Your task to perform on an android device: change notifications settings Image 0: 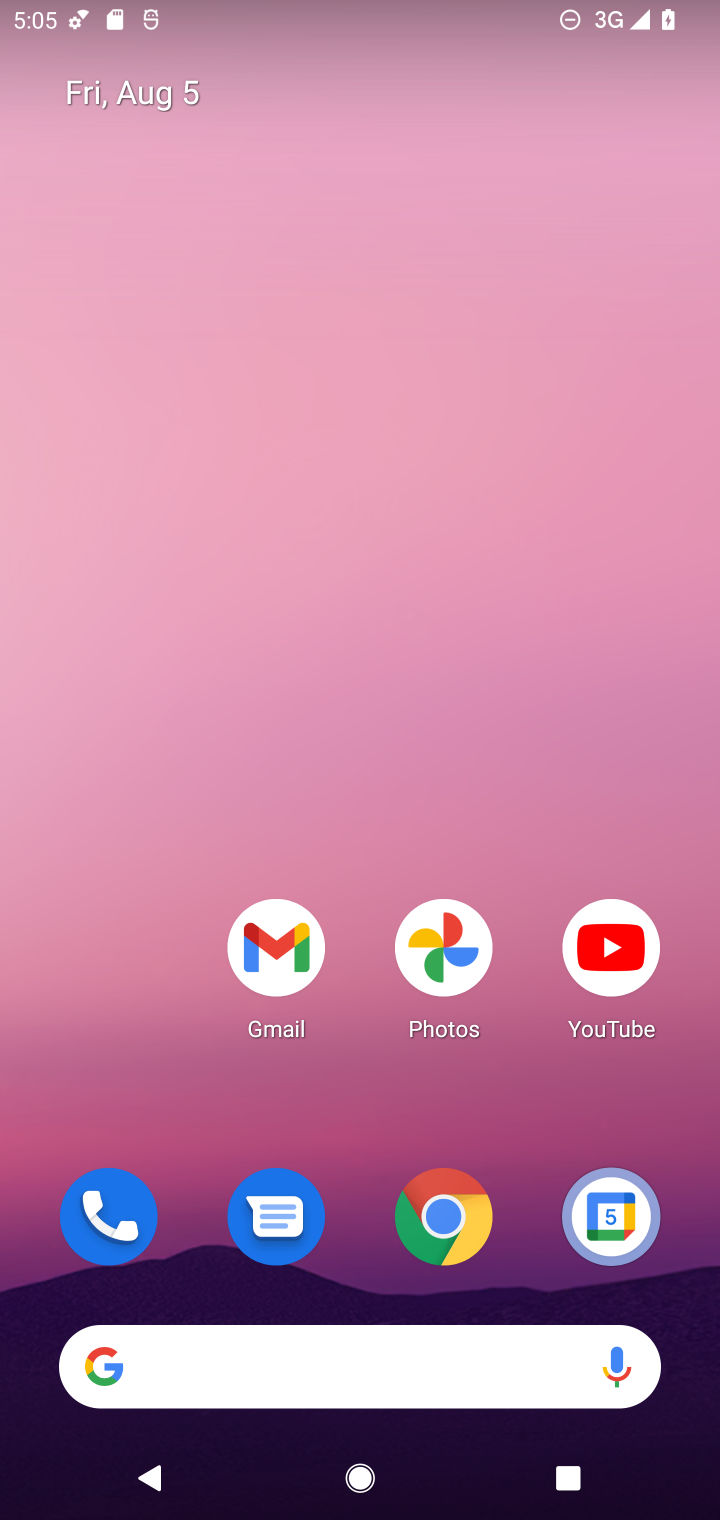
Step 0: drag from (410, 1088) to (410, 40)
Your task to perform on an android device: change notifications settings Image 1: 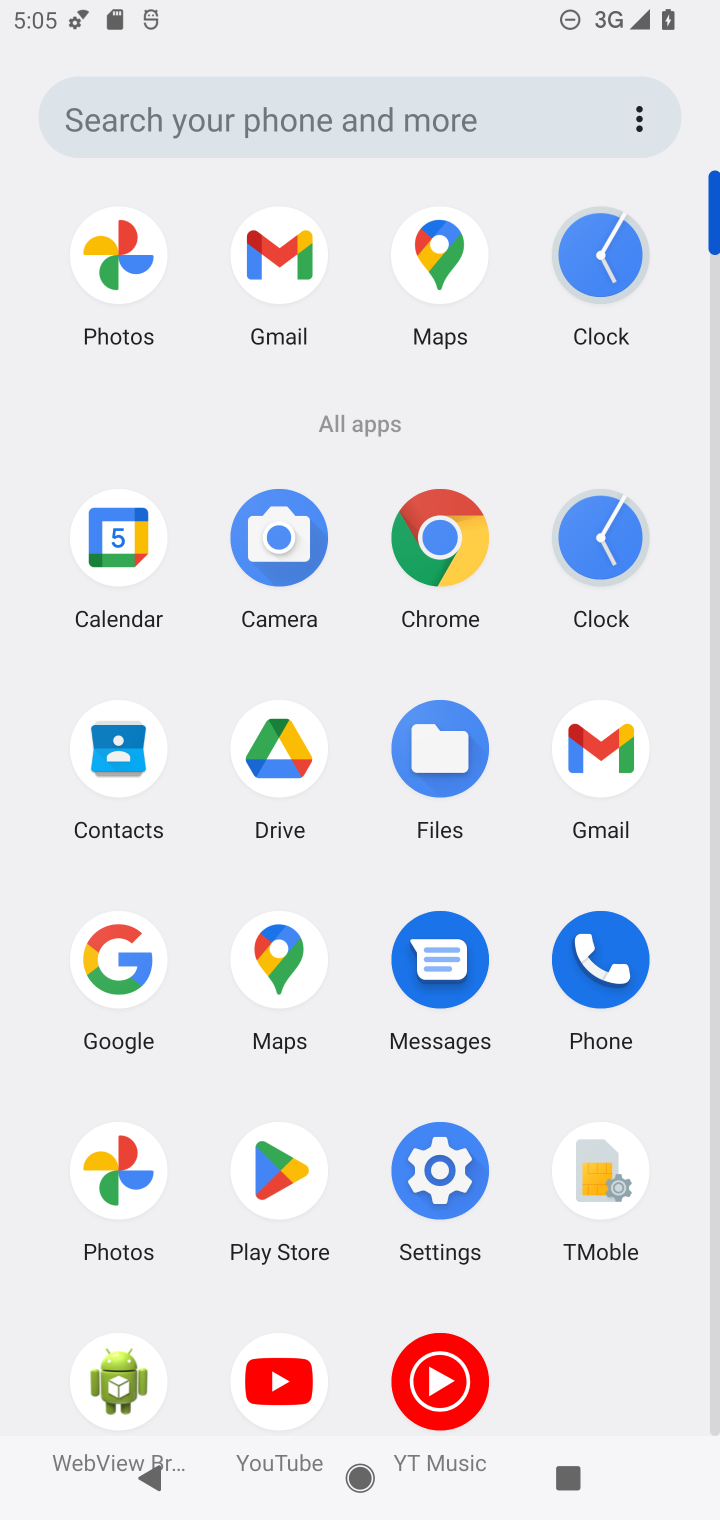
Step 1: click (433, 1206)
Your task to perform on an android device: change notifications settings Image 2: 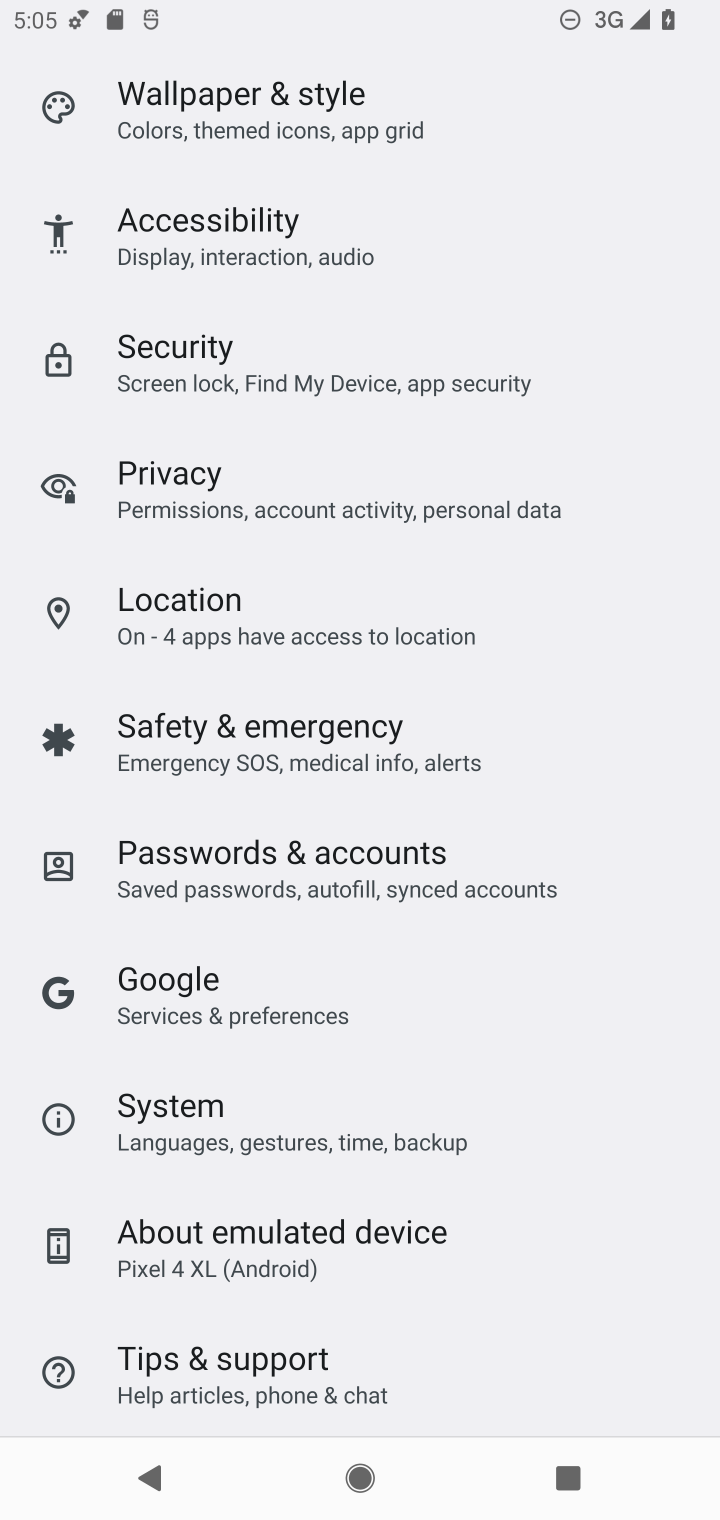
Step 2: drag from (319, 165) to (338, 1252)
Your task to perform on an android device: change notifications settings Image 3: 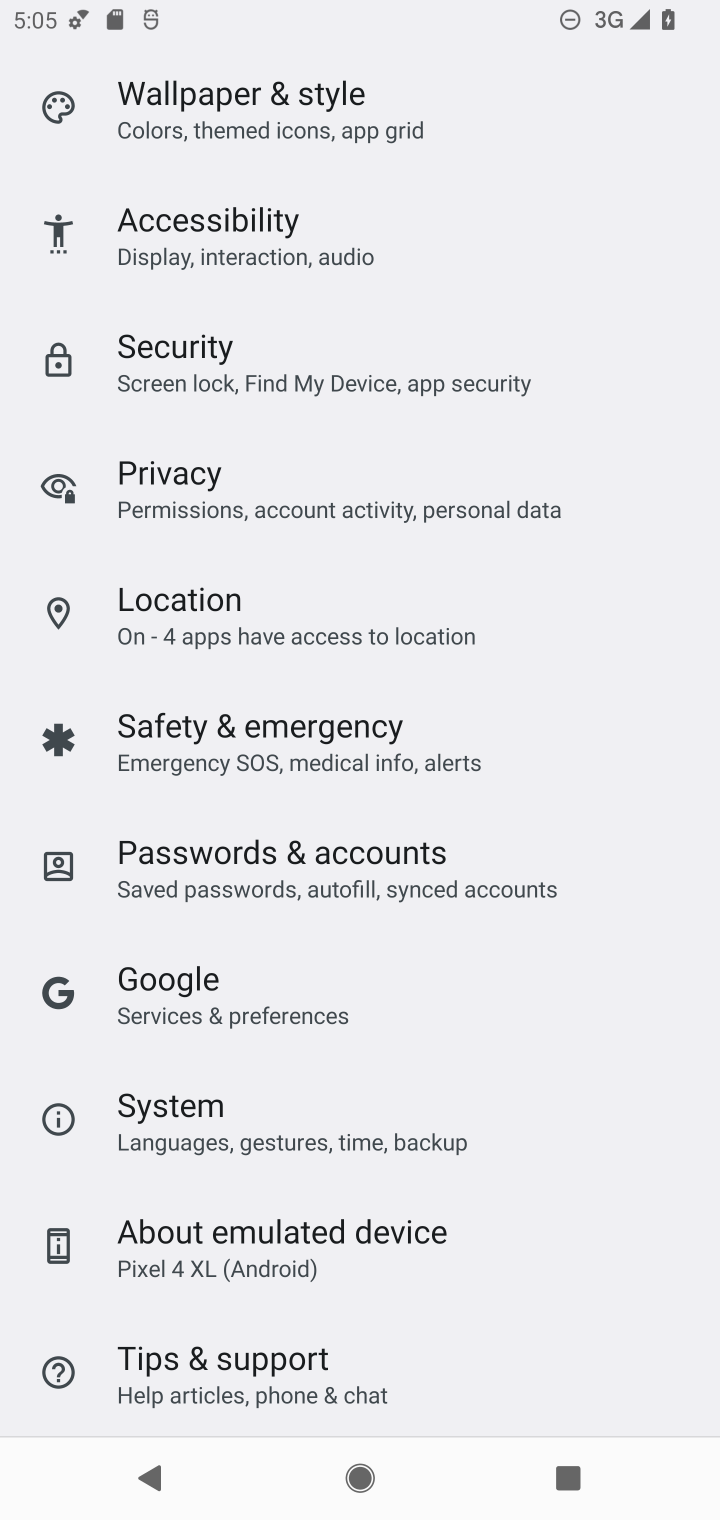
Step 3: drag from (412, 426) to (430, 1404)
Your task to perform on an android device: change notifications settings Image 4: 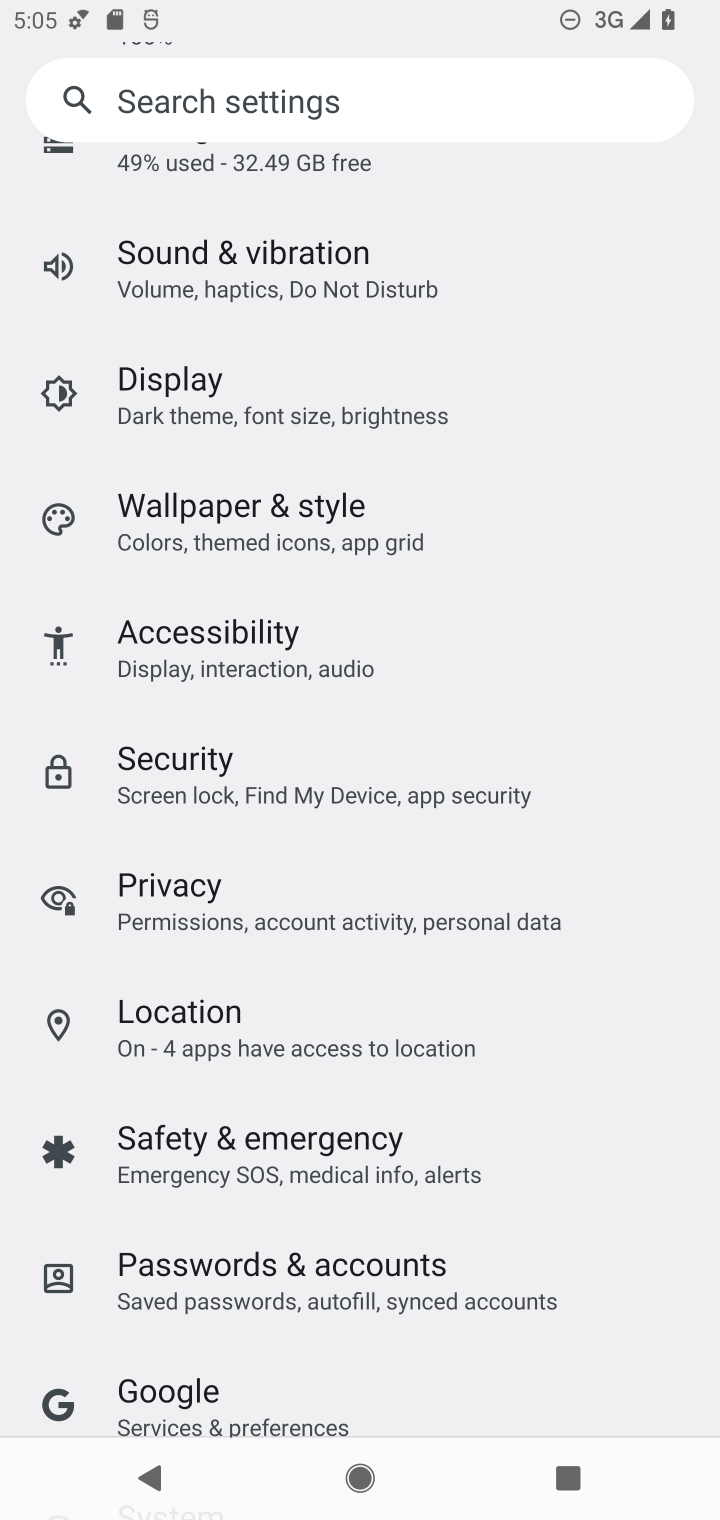
Step 4: drag from (477, 558) to (717, 1129)
Your task to perform on an android device: change notifications settings Image 5: 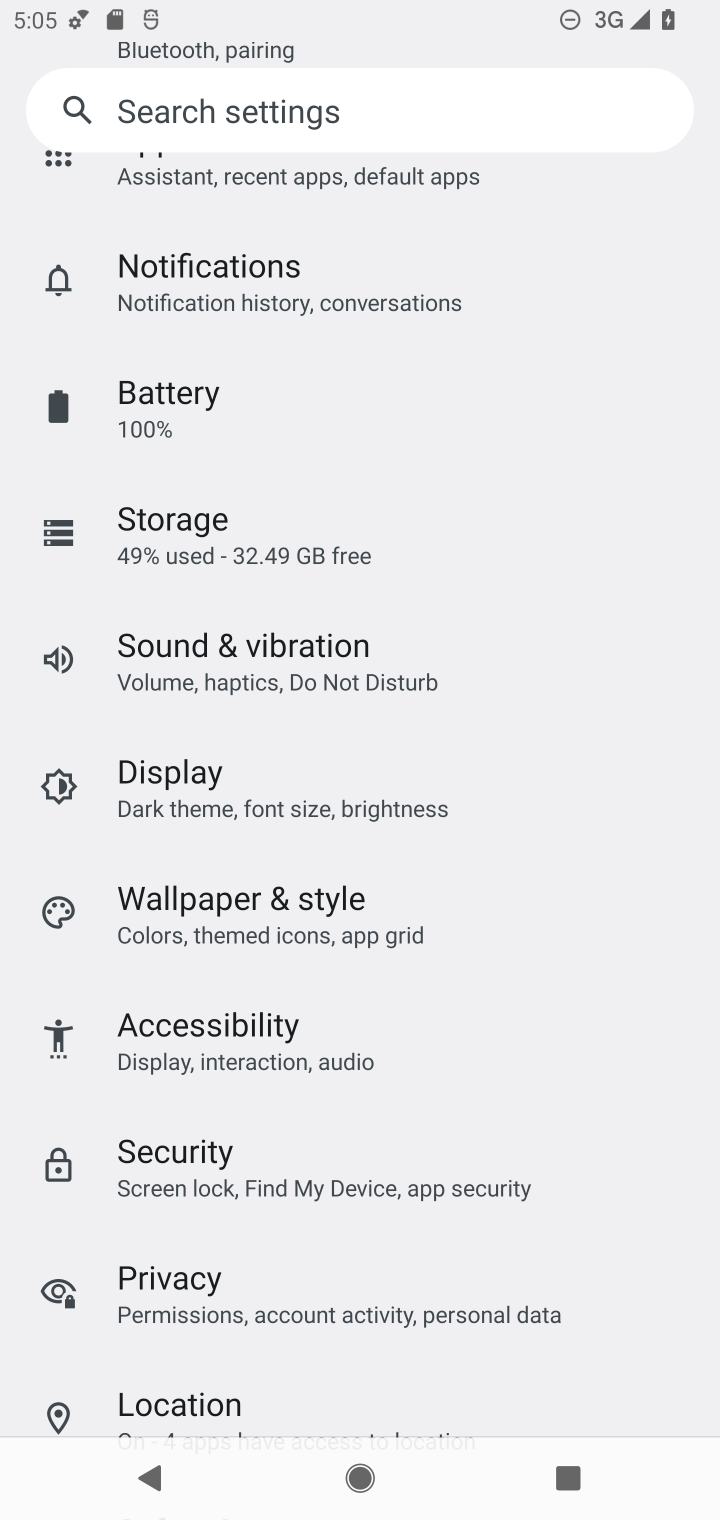
Step 5: click (356, 296)
Your task to perform on an android device: change notifications settings Image 6: 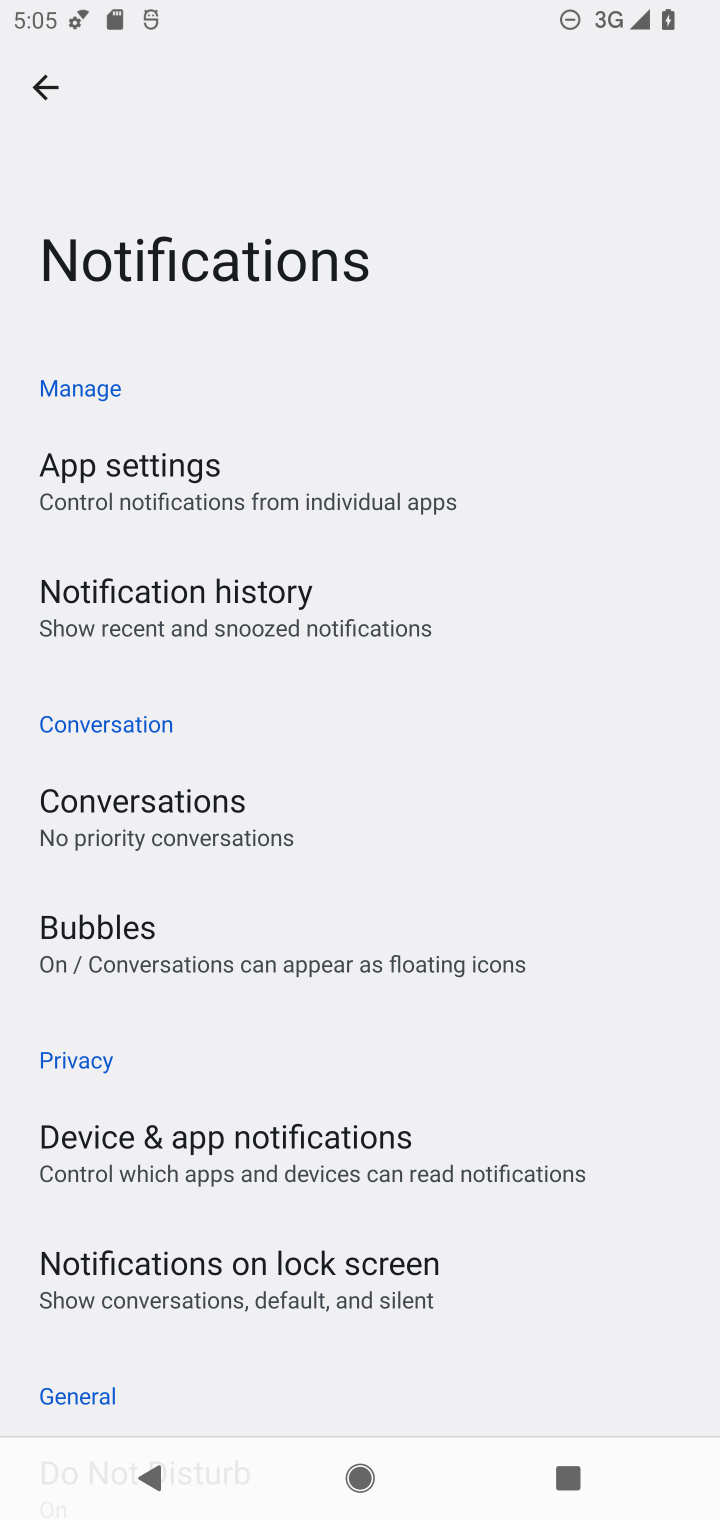
Step 6: click (245, 483)
Your task to perform on an android device: change notifications settings Image 7: 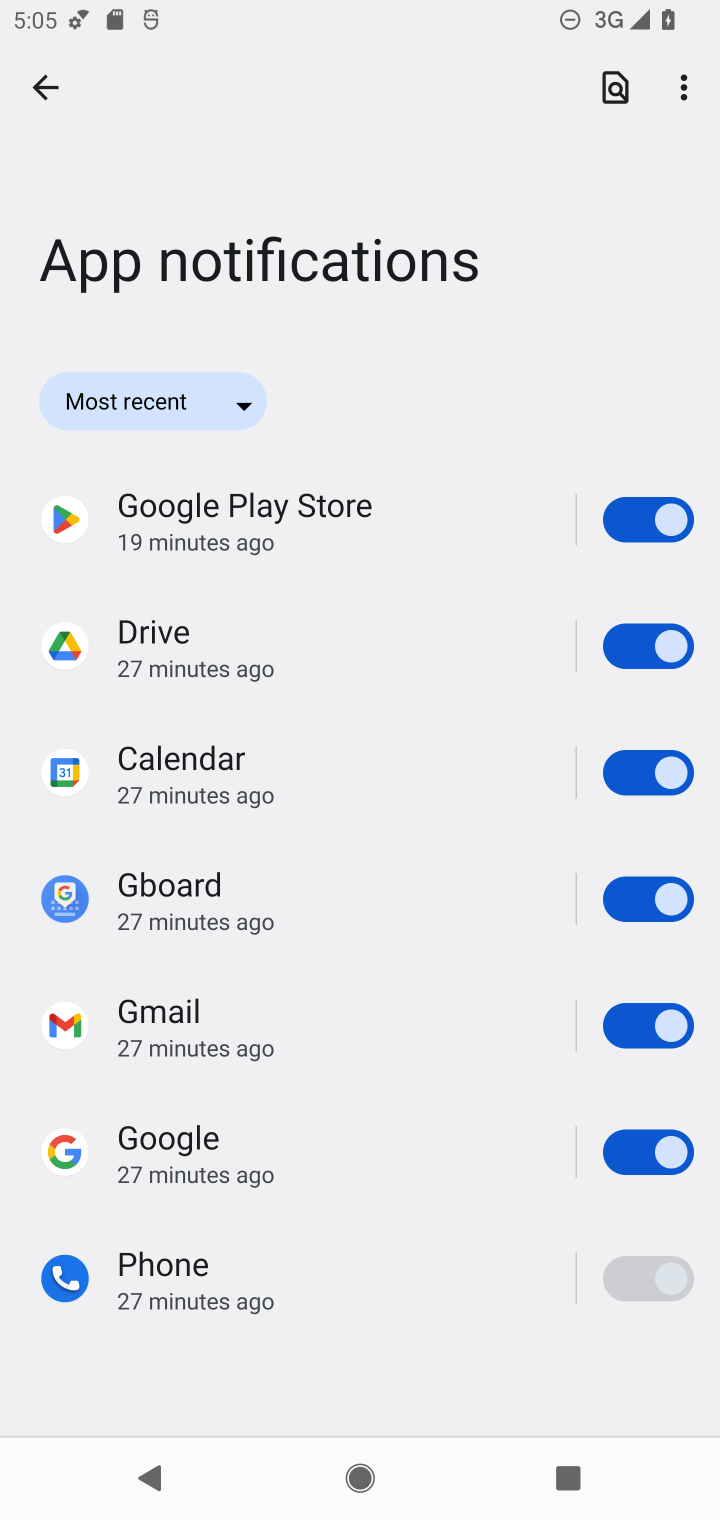
Step 7: click (645, 539)
Your task to perform on an android device: change notifications settings Image 8: 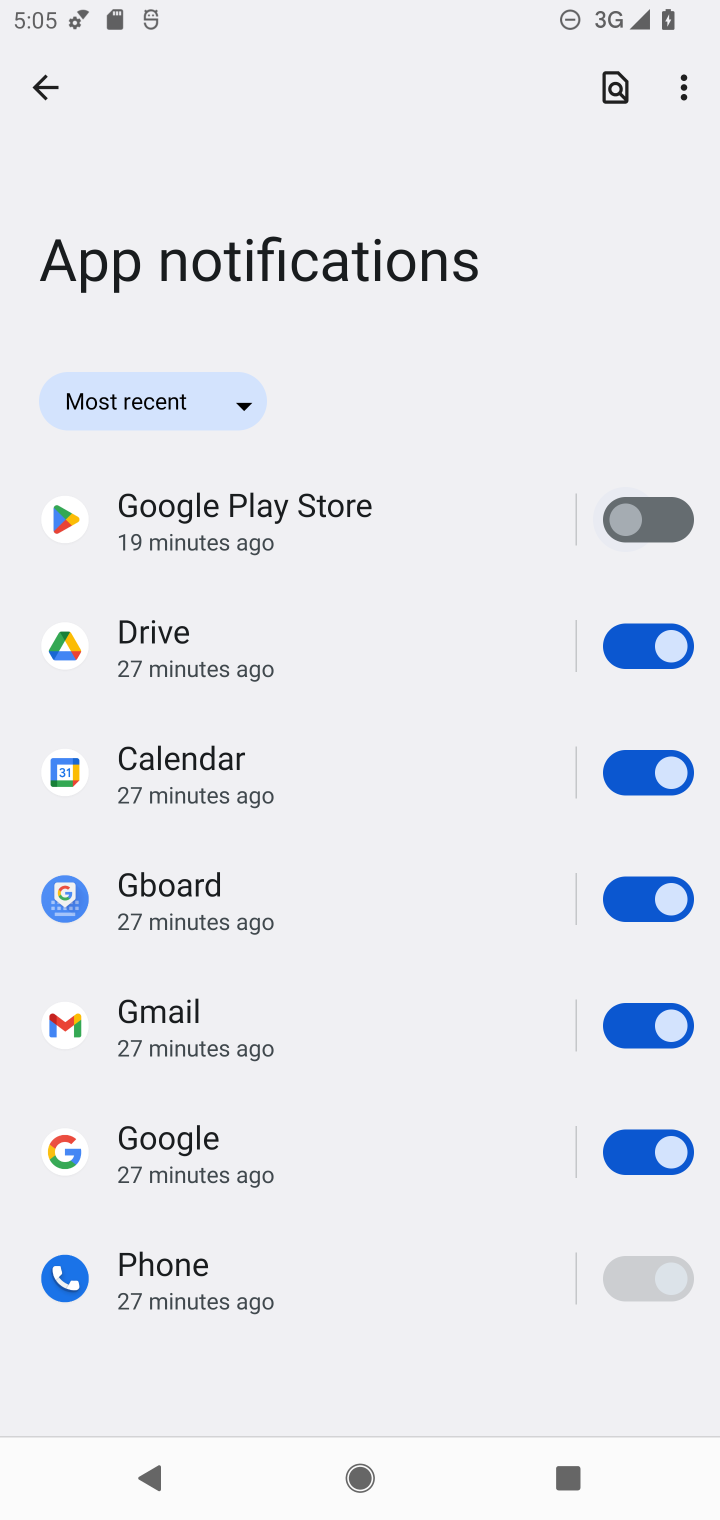
Step 8: click (645, 639)
Your task to perform on an android device: change notifications settings Image 9: 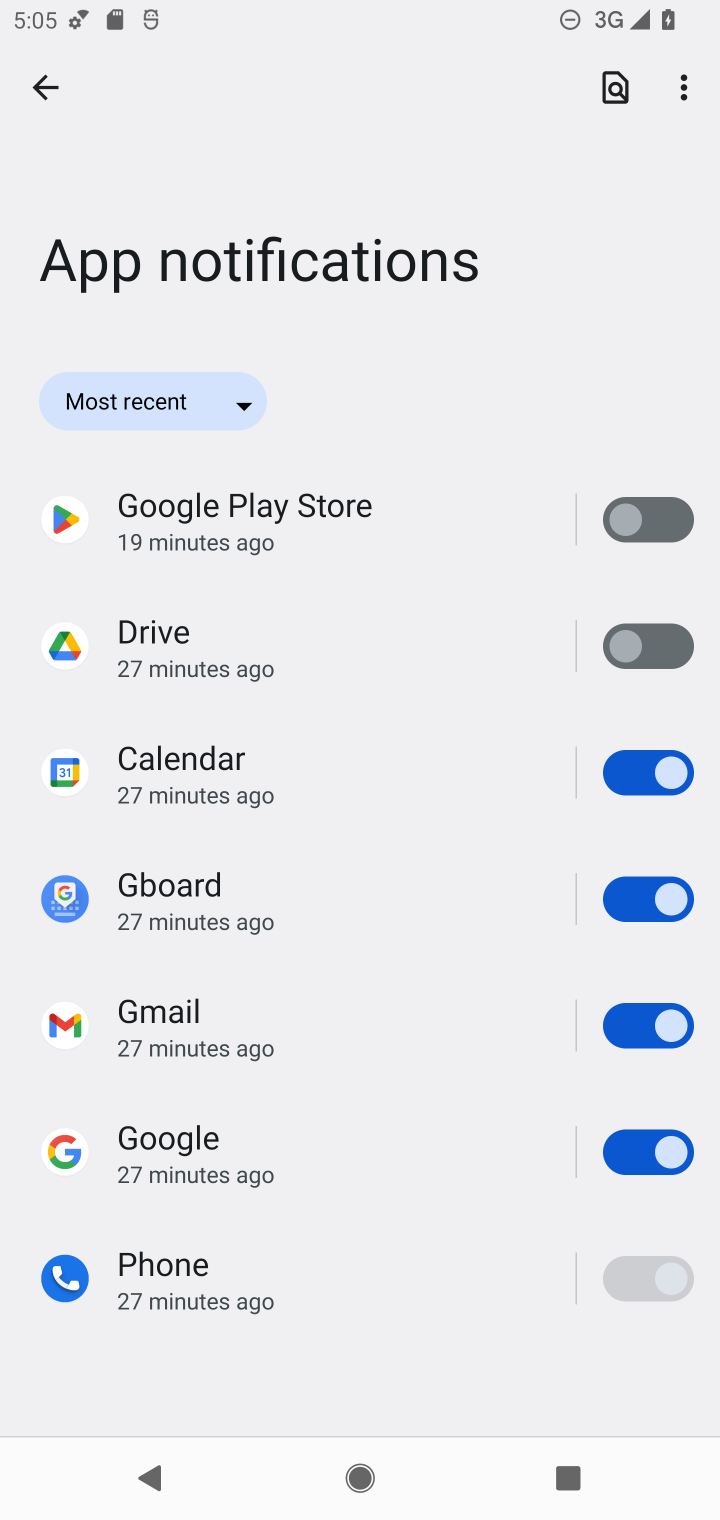
Step 9: click (645, 785)
Your task to perform on an android device: change notifications settings Image 10: 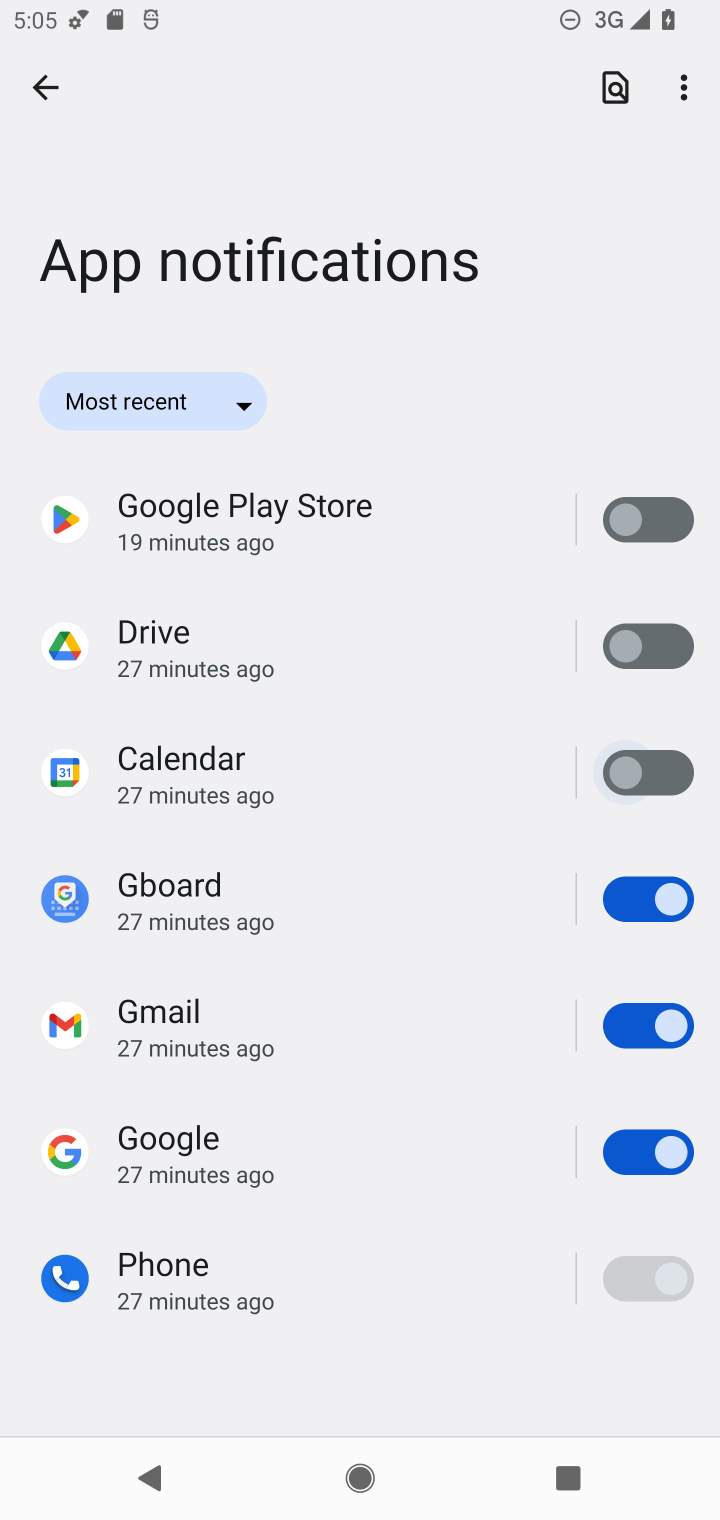
Step 10: click (645, 930)
Your task to perform on an android device: change notifications settings Image 11: 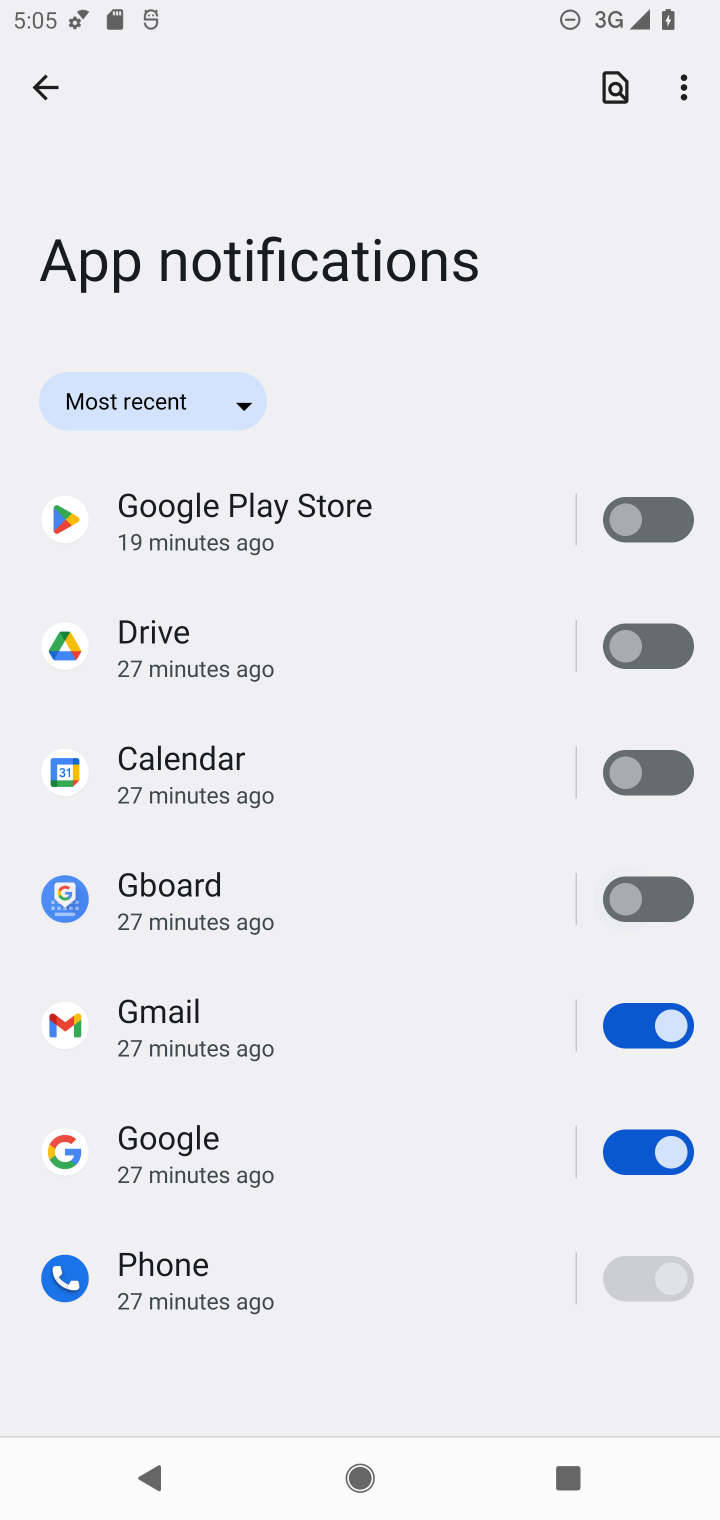
Step 11: click (645, 1015)
Your task to perform on an android device: change notifications settings Image 12: 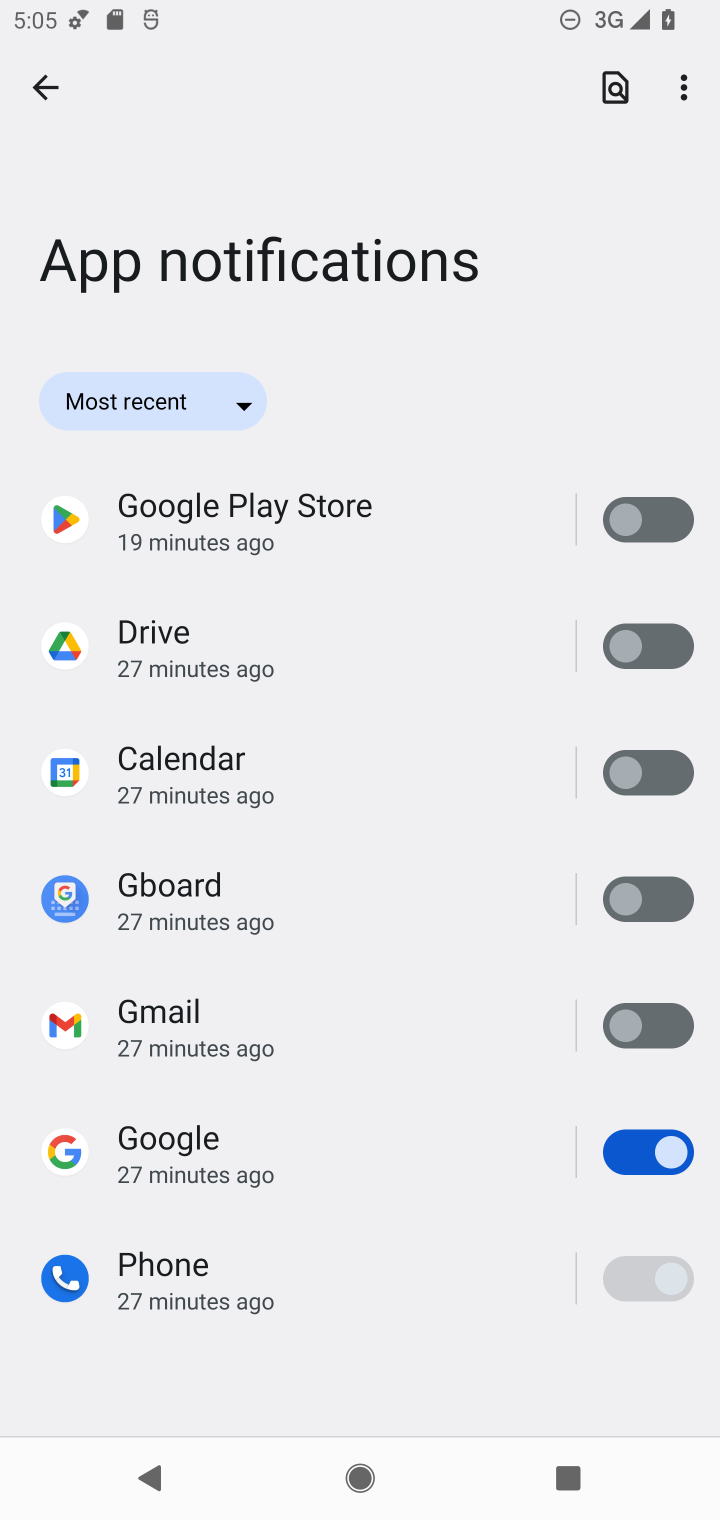
Step 12: click (645, 1166)
Your task to perform on an android device: change notifications settings Image 13: 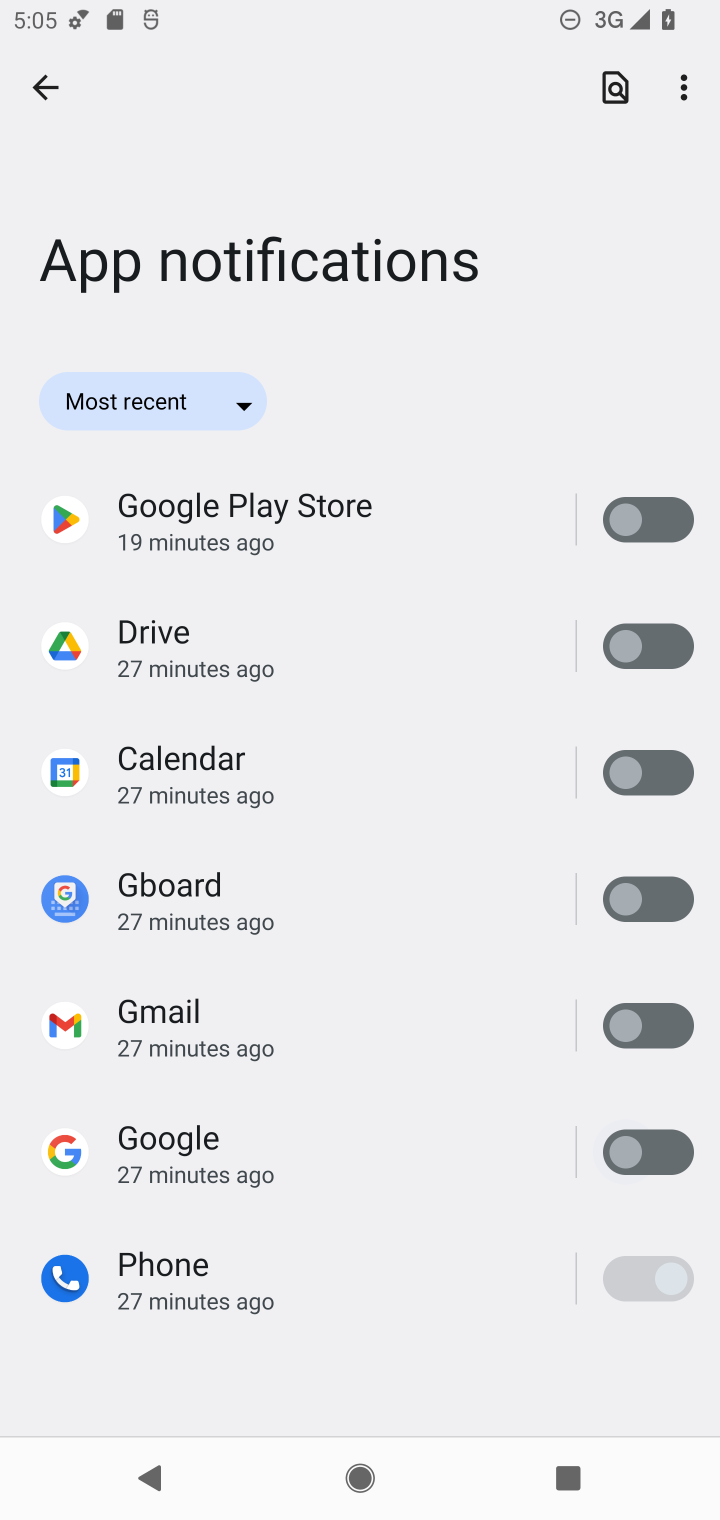
Step 13: click (663, 1266)
Your task to perform on an android device: change notifications settings Image 14: 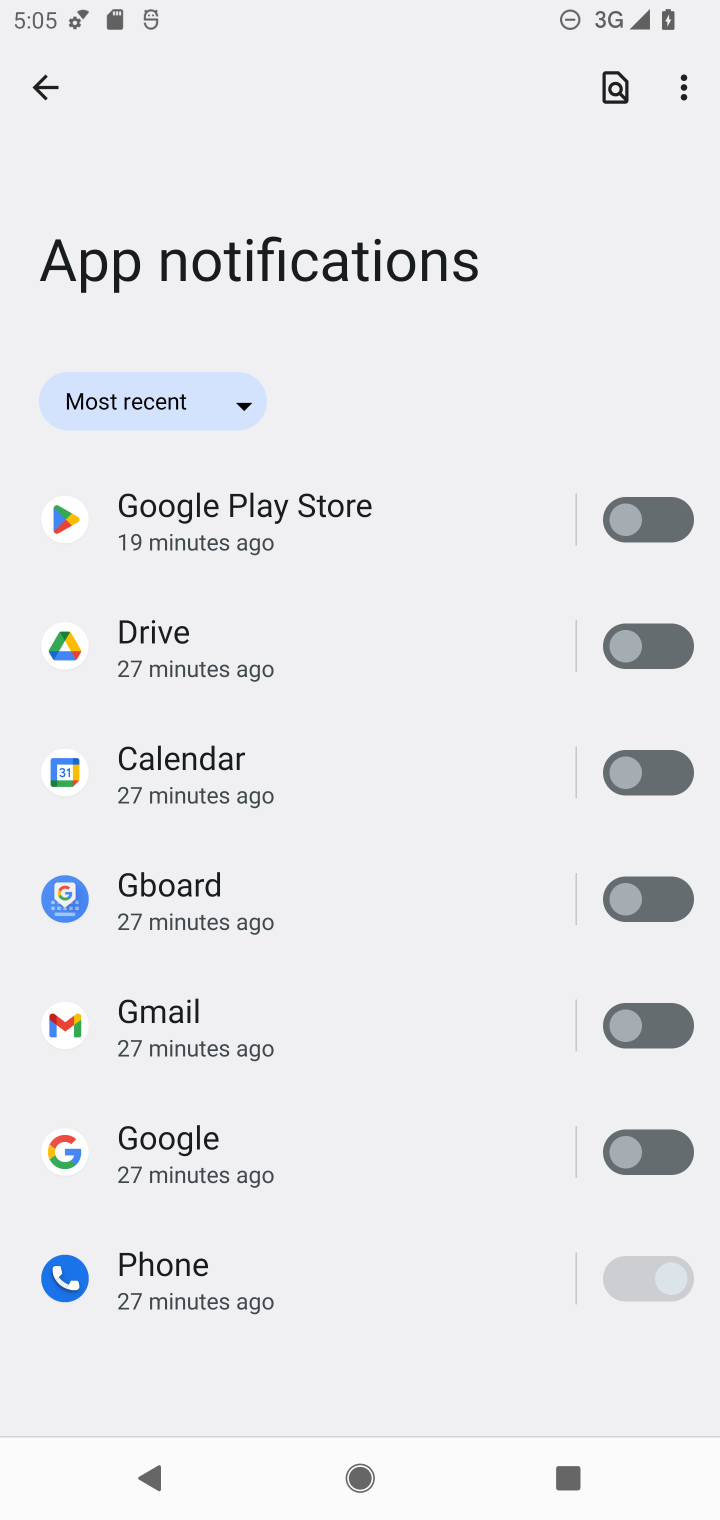
Step 14: click (53, 81)
Your task to perform on an android device: change notifications settings Image 15: 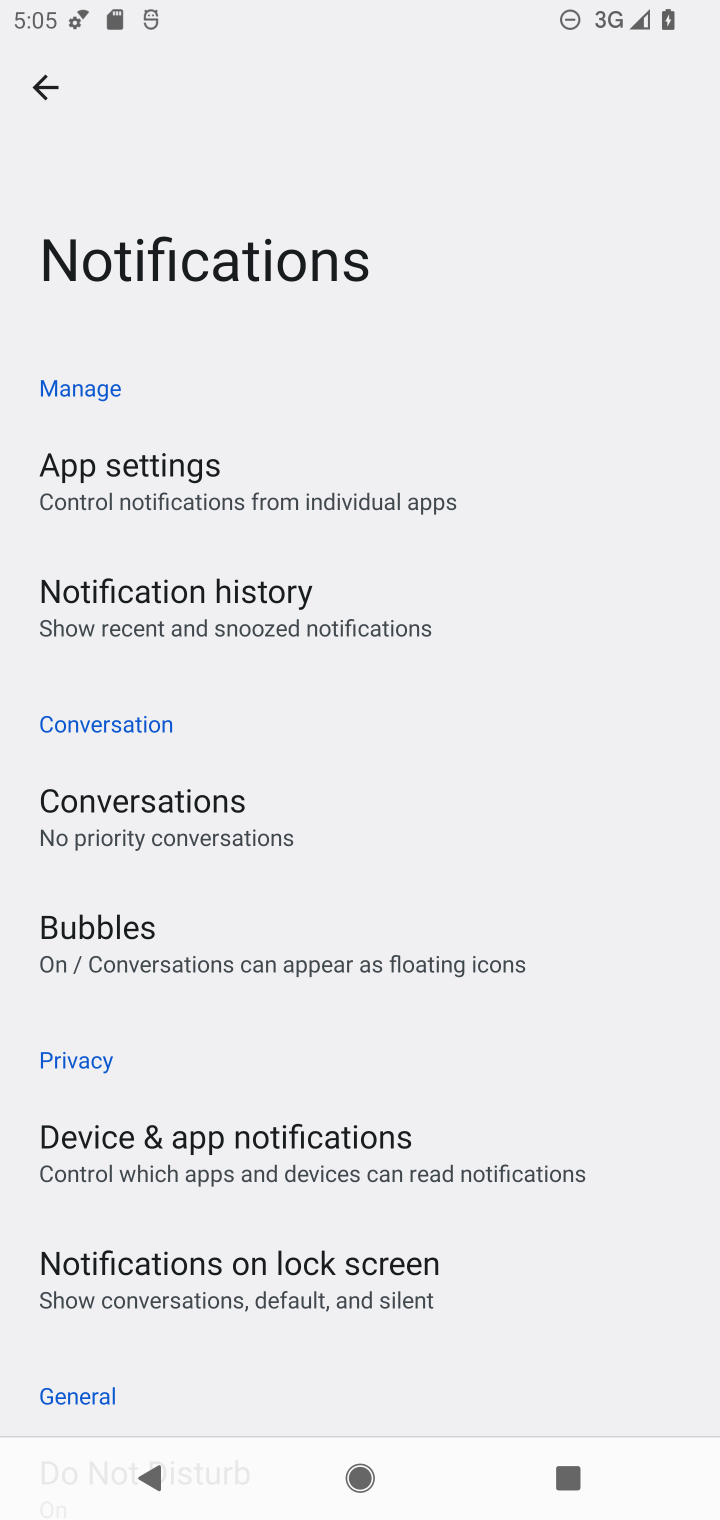
Step 15: click (177, 1260)
Your task to perform on an android device: change notifications settings Image 16: 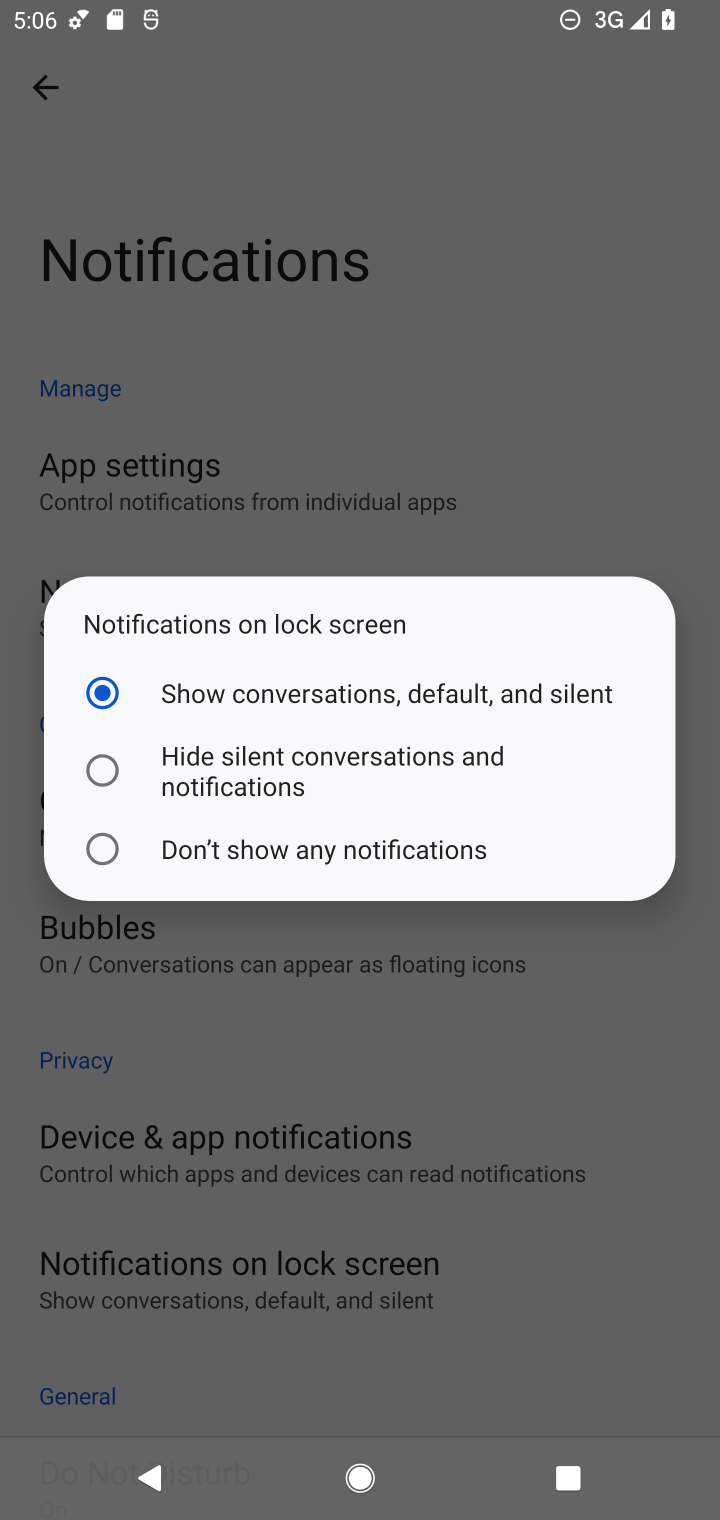
Step 16: click (310, 765)
Your task to perform on an android device: change notifications settings Image 17: 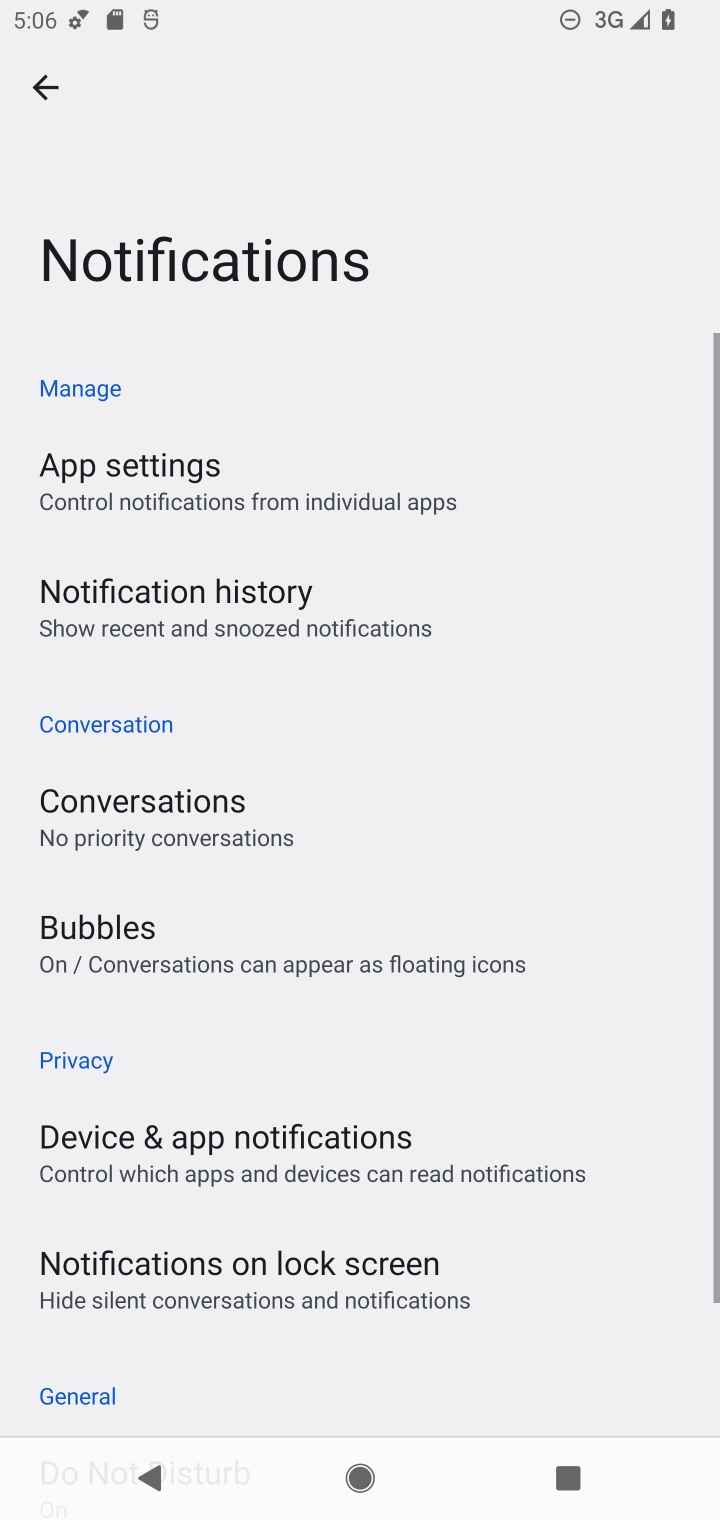
Step 17: drag from (268, 1185) to (231, 349)
Your task to perform on an android device: change notifications settings Image 18: 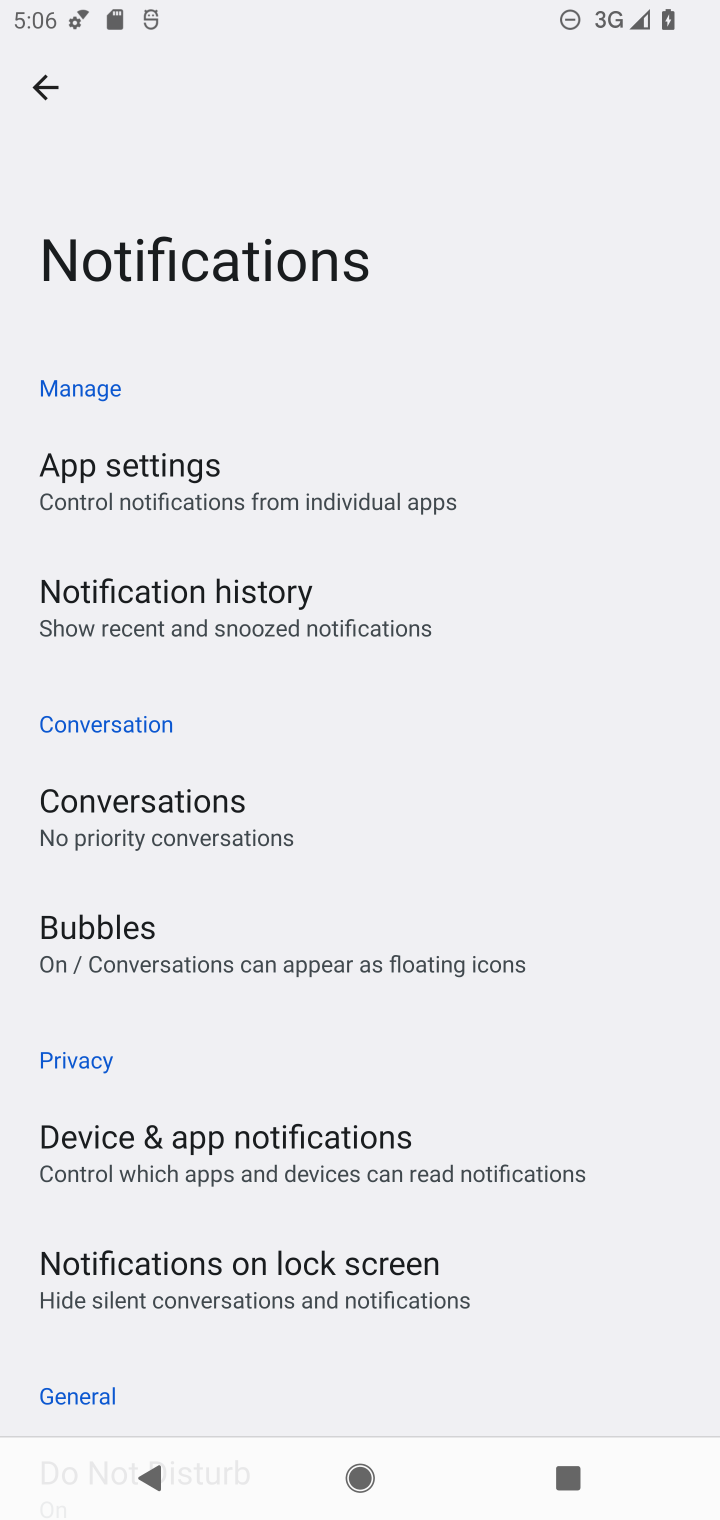
Step 18: drag from (214, 1084) to (150, 386)
Your task to perform on an android device: change notifications settings Image 19: 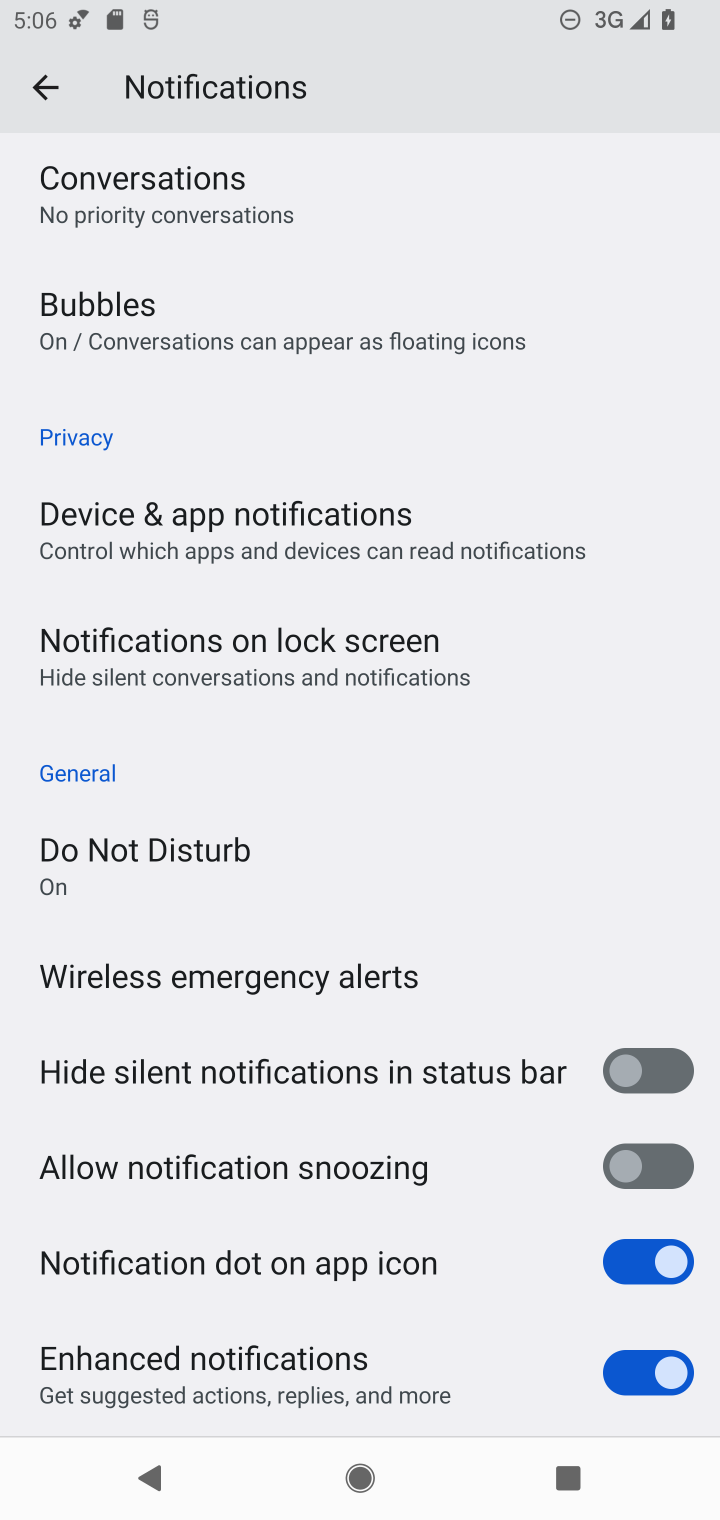
Step 19: drag from (552, 1147) to (552, 859)
Your task to perform on an android device: change notifications settings Image 20: 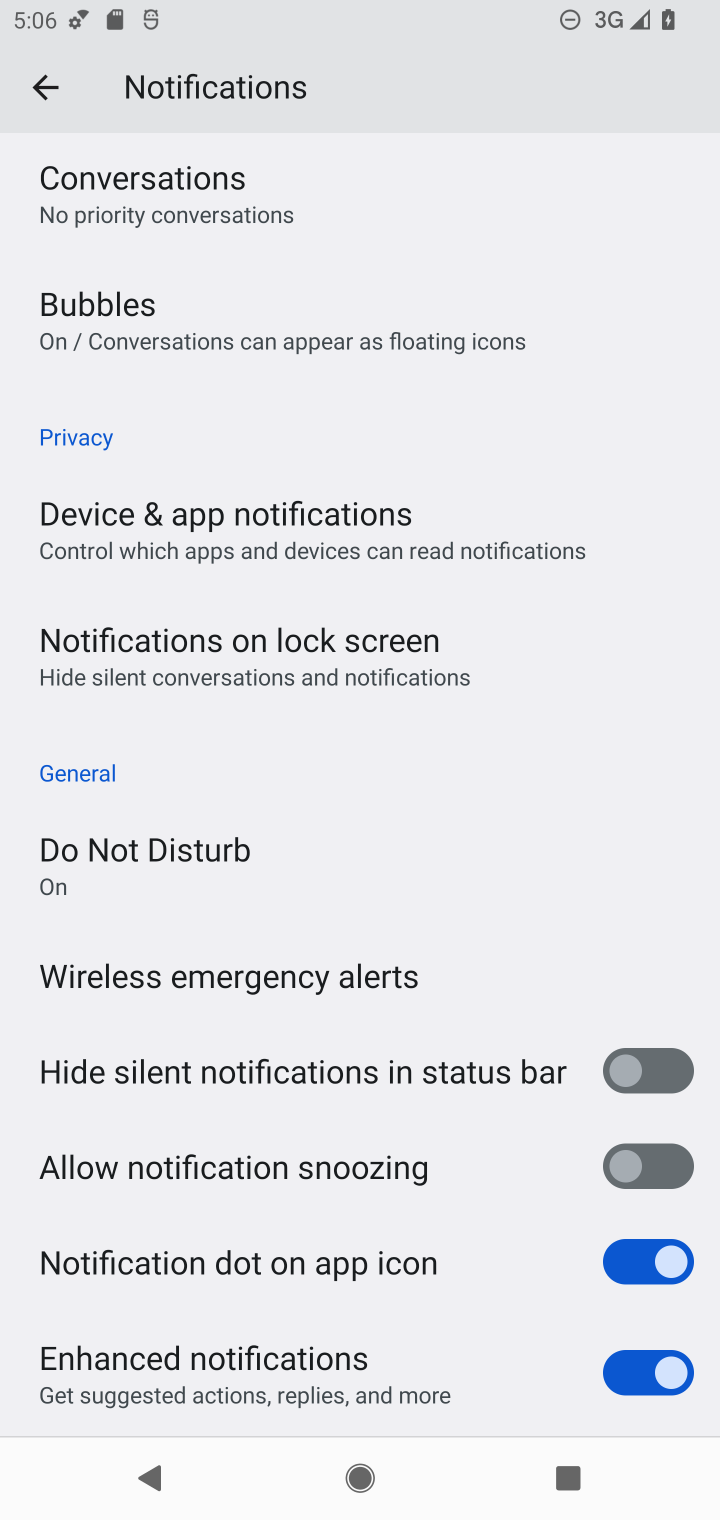
Step 20: click (688, 1072)
Your task to perform on an android device: change notifications settings Image 21: 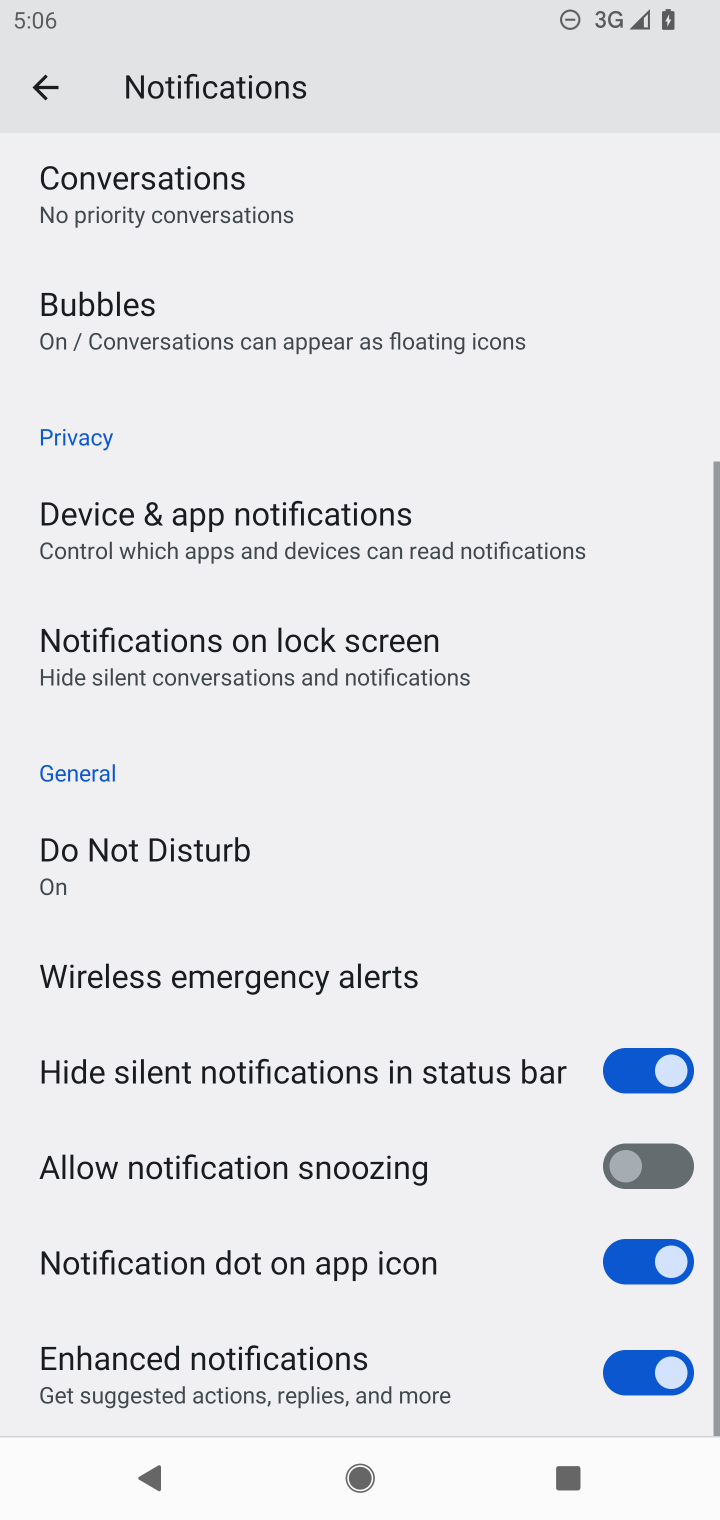
Step 21: click (670, 1189)
Your task to perform on an android device: change notifications settings Image 22: 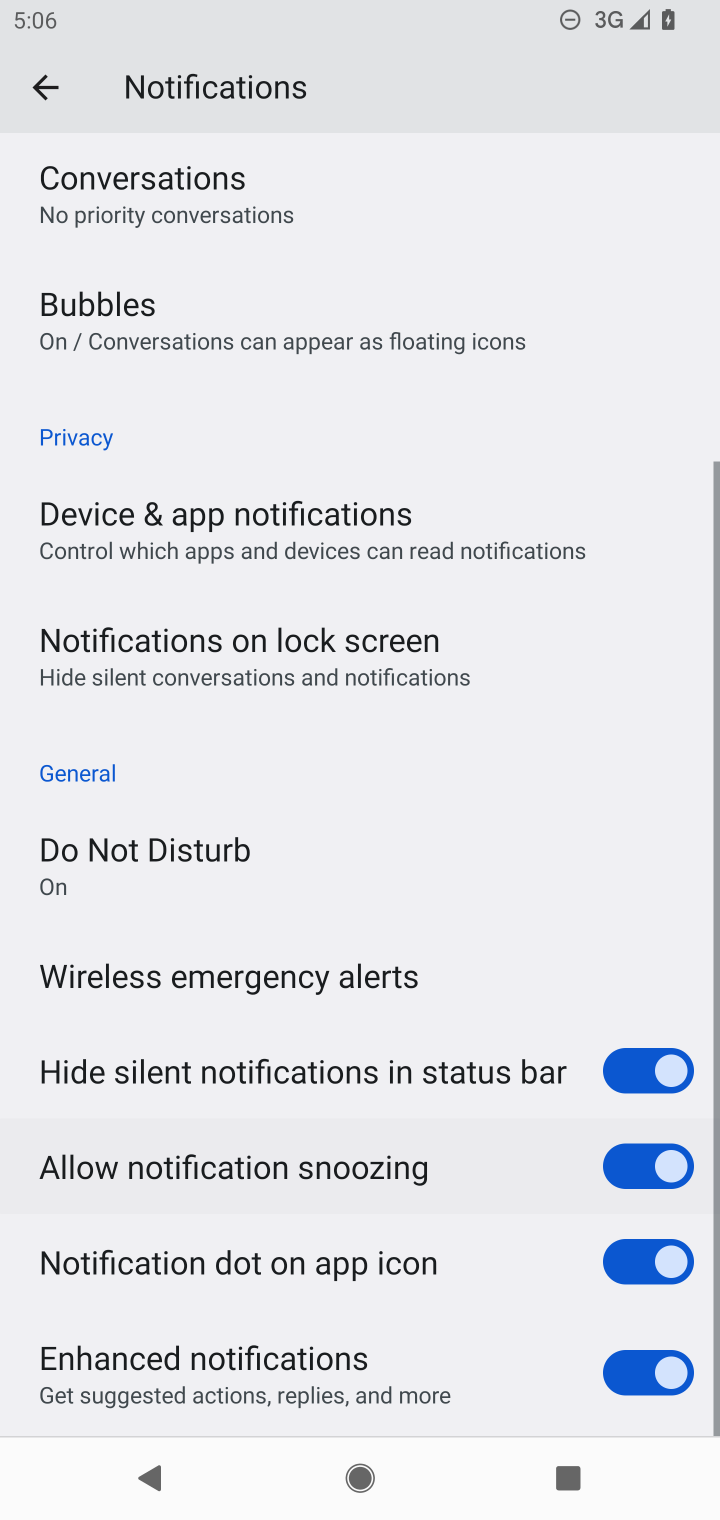
Step 22: click (668, 1264)
Your task to perform on an android device: change notifications settings Image 23: 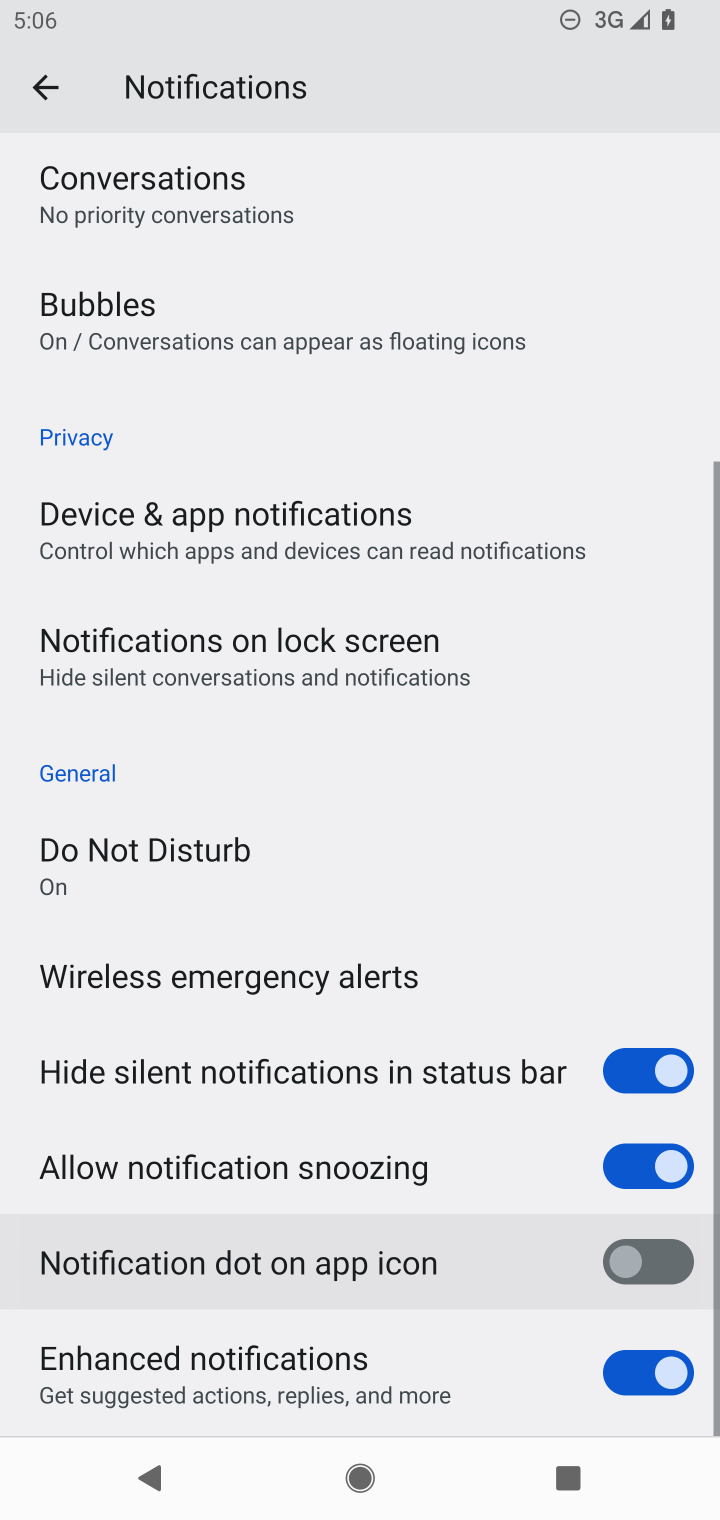
Step 23: click (660, 1365)
Your task to perform on an android device: change notifications settings Image 24: 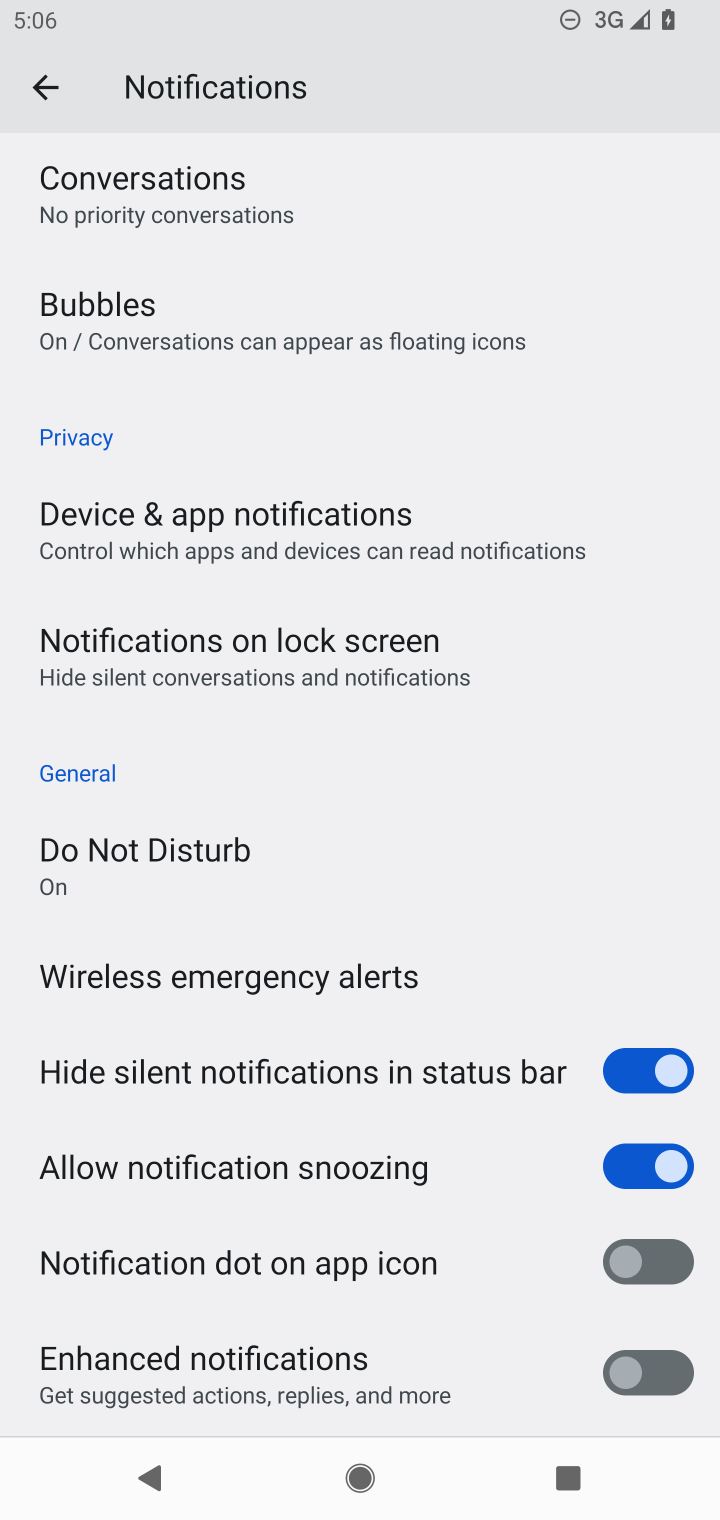
Step 24: task complete